Your task to perform on an android device: Open calendar and show me the fourth week of next month Image 0: 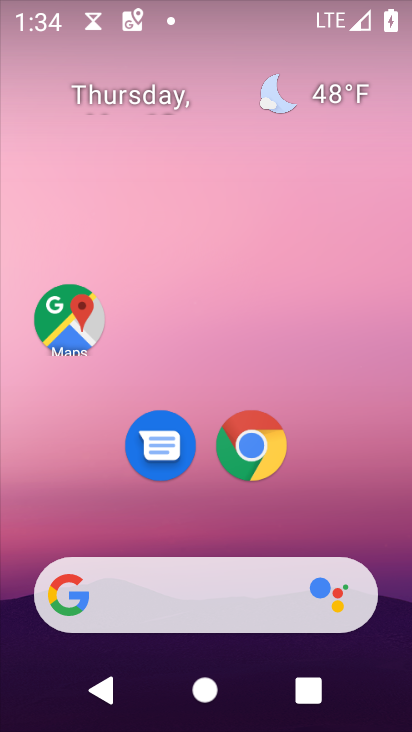
Step 0: drag from (299, 508) to (273, 51)
Your task to perform on an android device: Open calendar and show me the fourth week of next month Image 1: 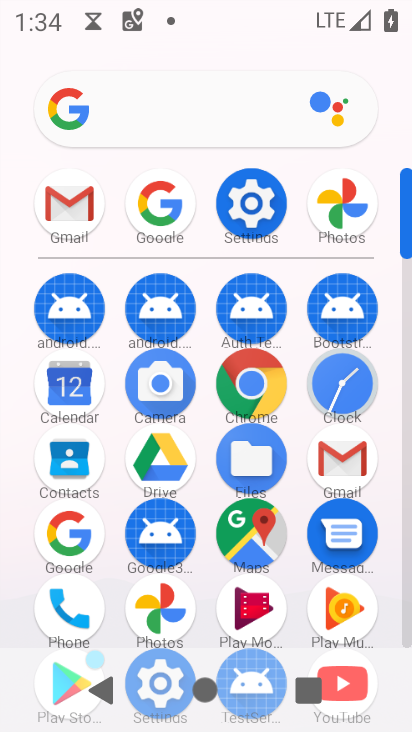
Step 1: drag from (206, 538) to (202, 464)
Your task to perform on an android device: Open calendar and show me the fourth week of next month Image 2: 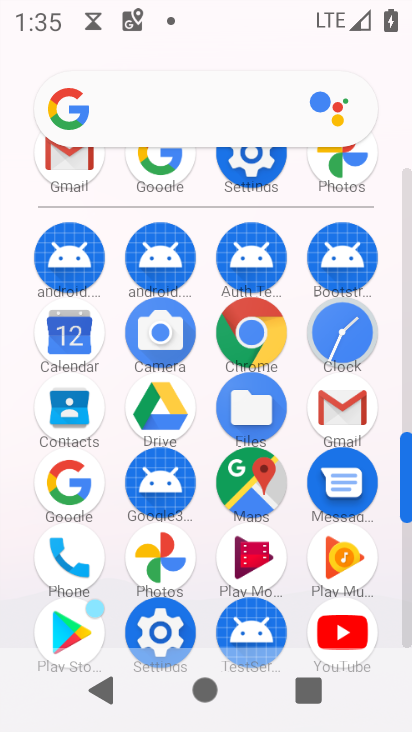
Step 2: click (59, 332)
Your task to perform on an android device: Open calendar and show me the fourth week of next month Image 3: 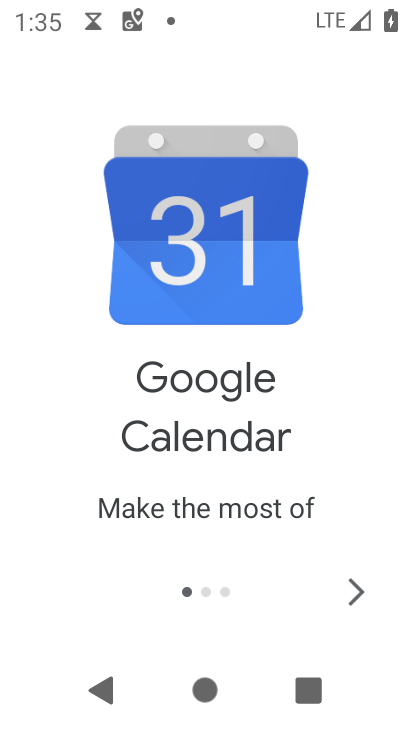
Step 3: click (355, 593)
Your task to perform on an android device: Open calendar and show me the fourth week of next month Image 4: 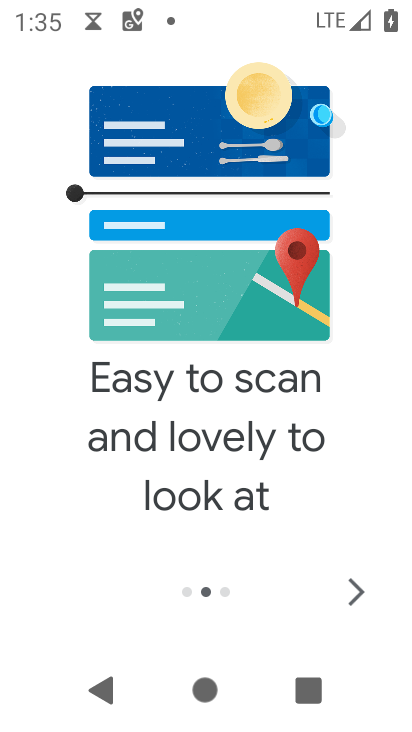
Step 4: click (355, 592)
Your task to perform on an android device: Open calendar and show me the fourth week of next month Image 5: 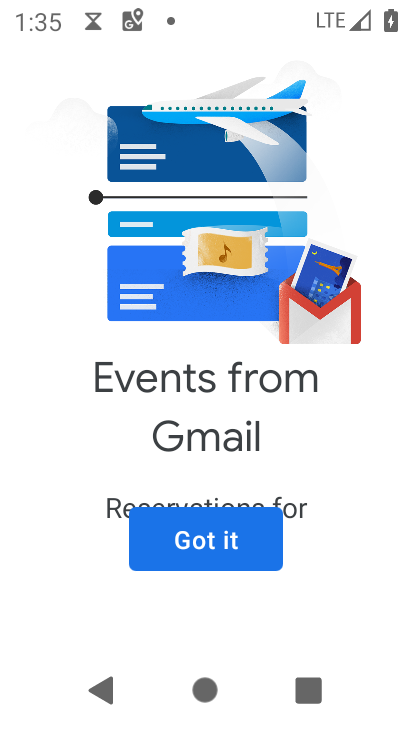
Step 5: click (240, 530)
Your task to perform on an android device: Open calendar and show me the fourth week of next month Image 6: 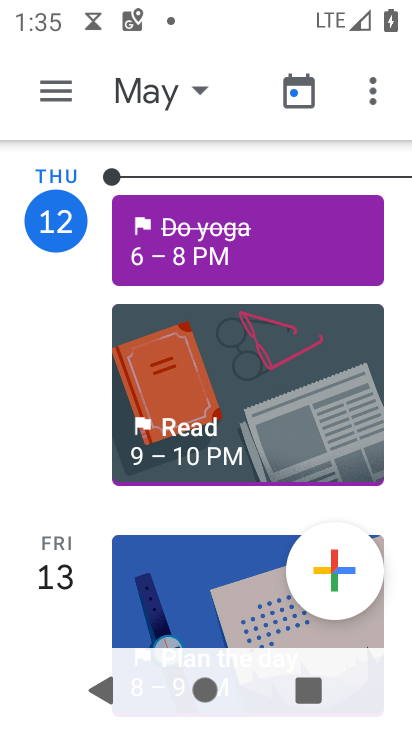
Step 6: click (183, 82)
Your task to perform on an android device: Open calendar and show me the fourth week of next month Image 7: 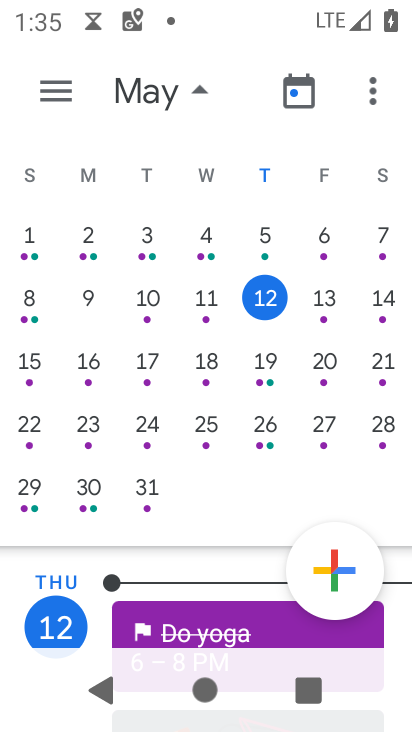
Step 7: drag from (363, 357) to (3, 273)
Your task to perform on an android device: Open calendar and show me the fourth week of next month Image 8: 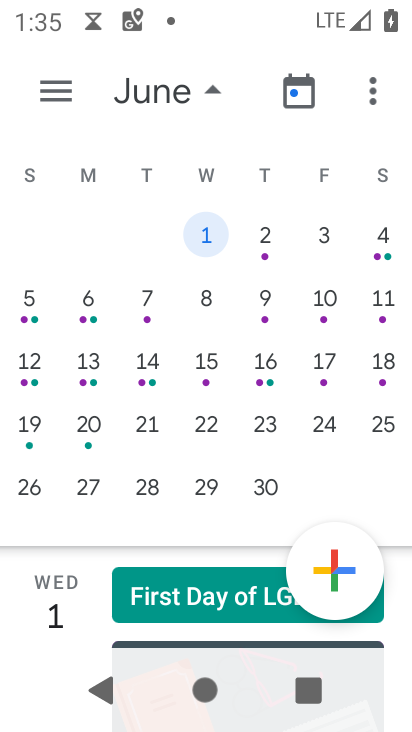
Step 8: click (269, 416)
Your task to perform on an android device: Open calendar and show me the fourth week of next month Image 9: 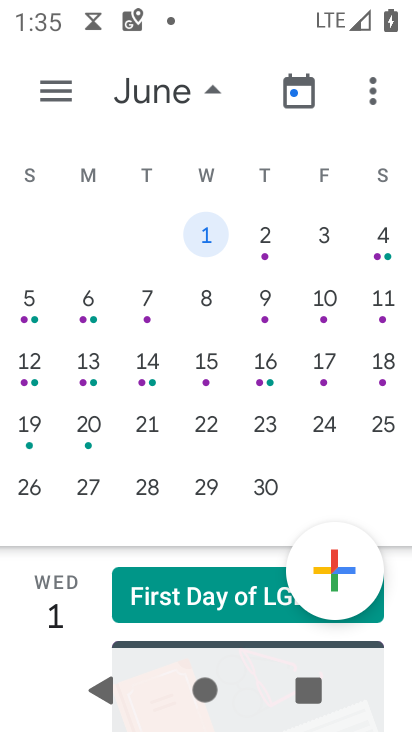
Step 9: click (204, 419)
Your task to perform on an android device: Open calendar and show me the fourth week of next month Image 10: 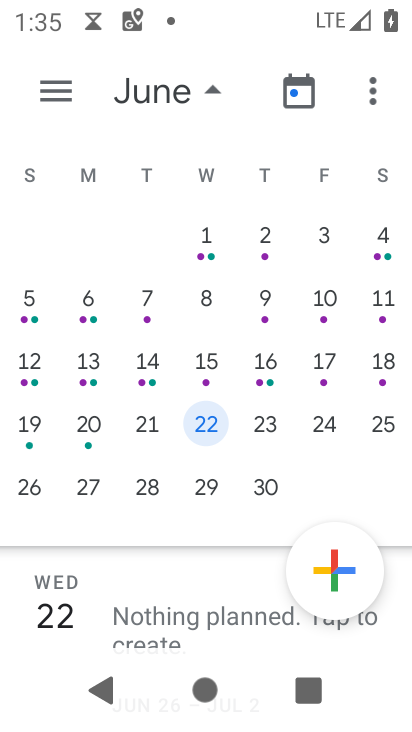
Step 10: click (55, 79)
Your task to perform on an android device: Open calendar and show me the fourth week of next month Image 11: 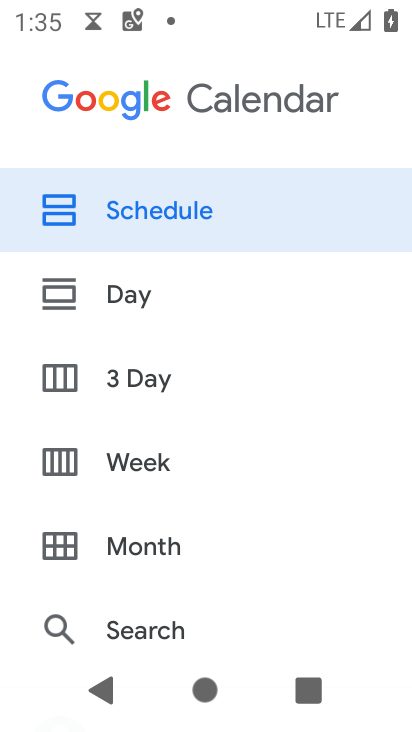
Step 11: click (144, 462)
Your task to perform on an android device: Open calendar and show me the fourth week of next month Image 12: 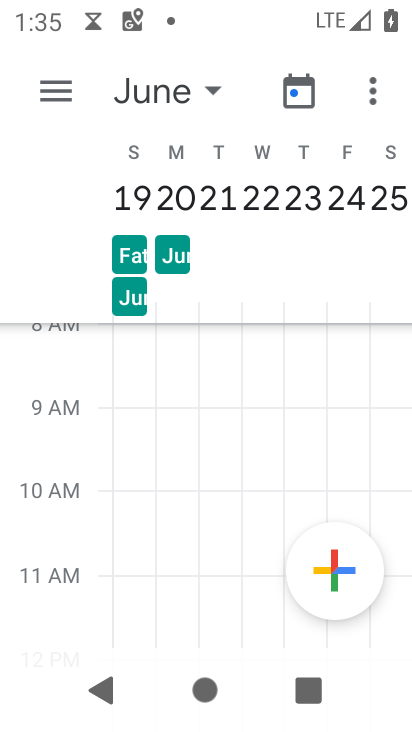
Step 12: task complete